Your task to perform on an android device: Go to network settings Image 0: 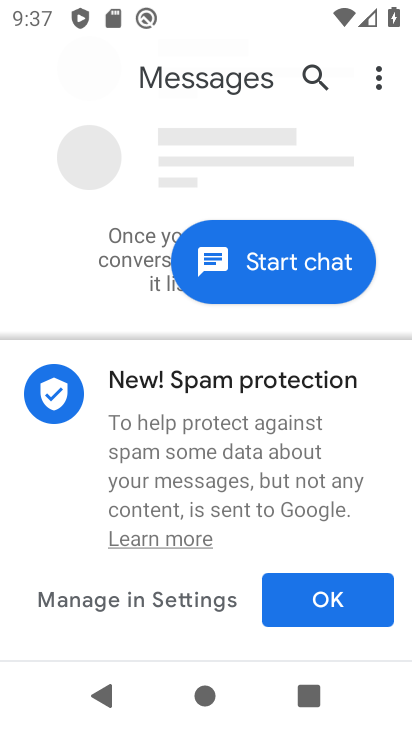
Step 0: press home button
Your task to perform on an android device: Go to network settings Image 1: 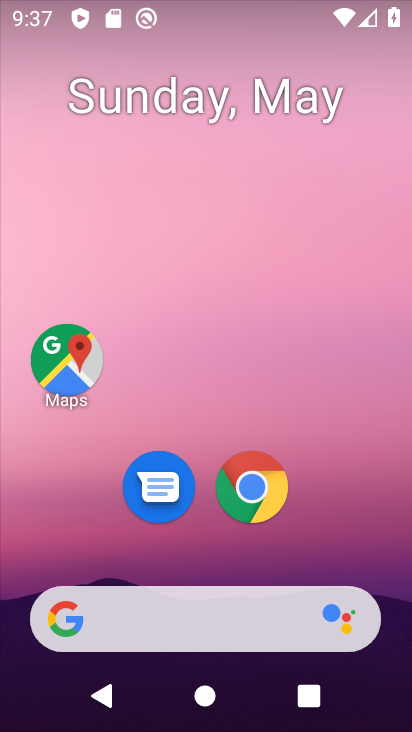
Step 1: drag from (377, 539) to (359, 119)
Your task to perform on an android device: Go to network settings Image 2: 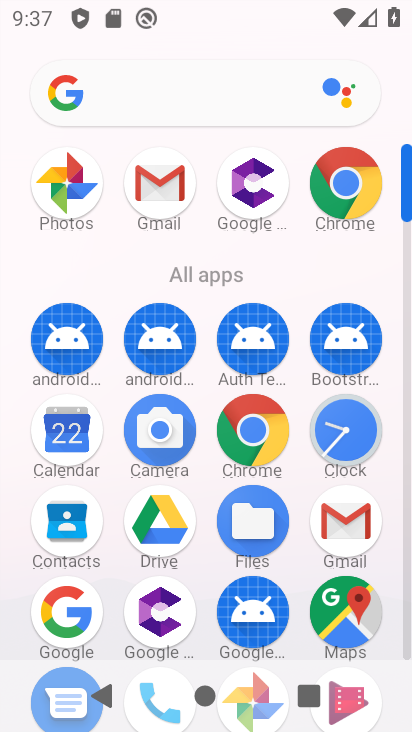
Step 2: drag from (293, 470) to (294, 282)
Your task to perform on an android device: Go to network settings Image 3: 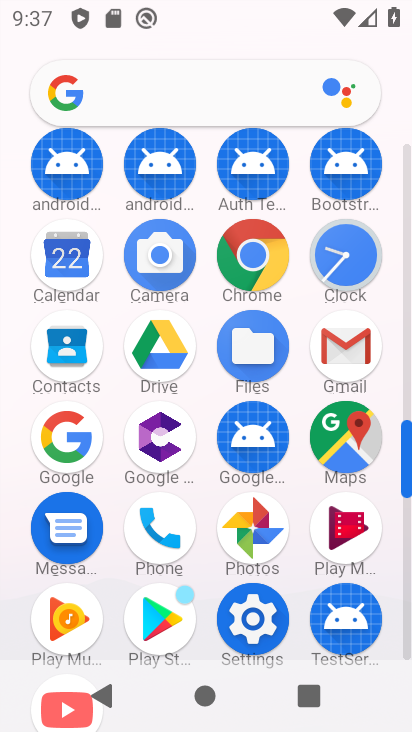
Step 3: click (263, 615)
Your task to perform on an android device: Go to network settings Image 4: 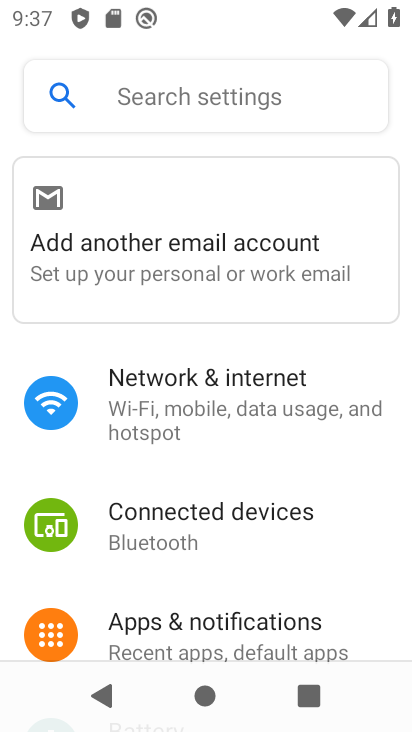
Step 4: drag from (362, 615) to (381, 459)
Your task to perform on an android device: Go to network settings Image 5: 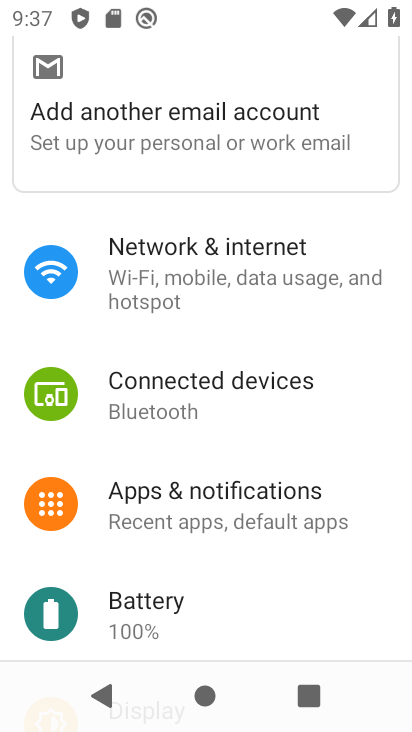
Step 5: drag from (364, 586) to (364, 483)
Your task to perform on an android device: Go to network settings Image 6: 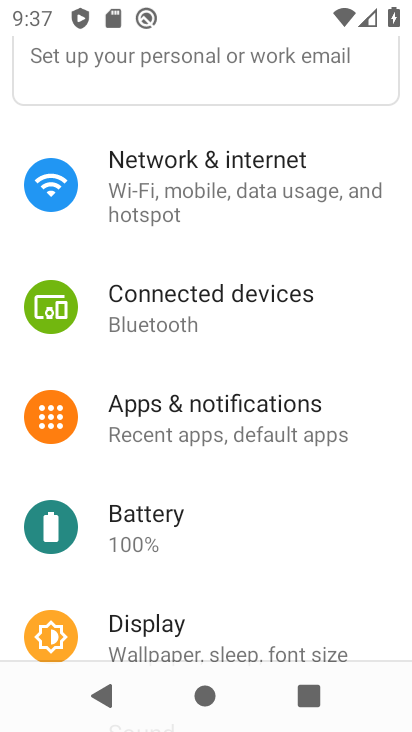
Step 6: drag from (353, 572) to (359, 449)
Your task to perform on an android device: Go to network settings Image 7: 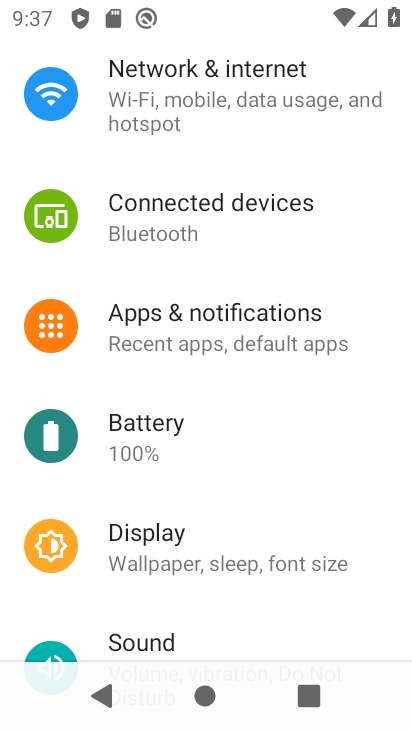
Step 7: drag from (368, 612) to (365, 467)
Your task to perform on an android device: Go to network settings Image 8: 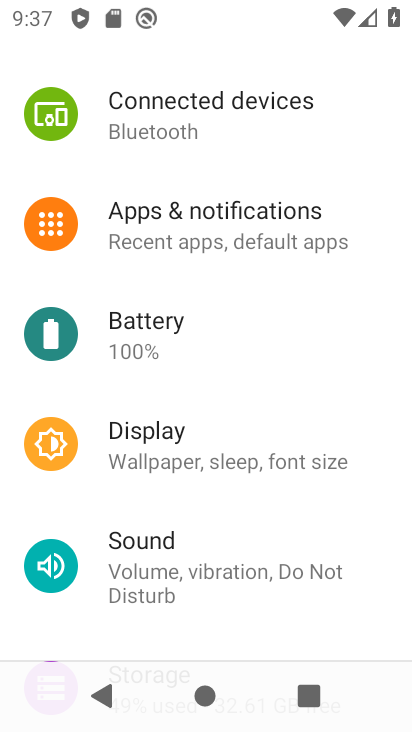
Step 8: drag from (348, 630) to (346, 490)
Your task to perform on an android device: Go to network settings Image 9: 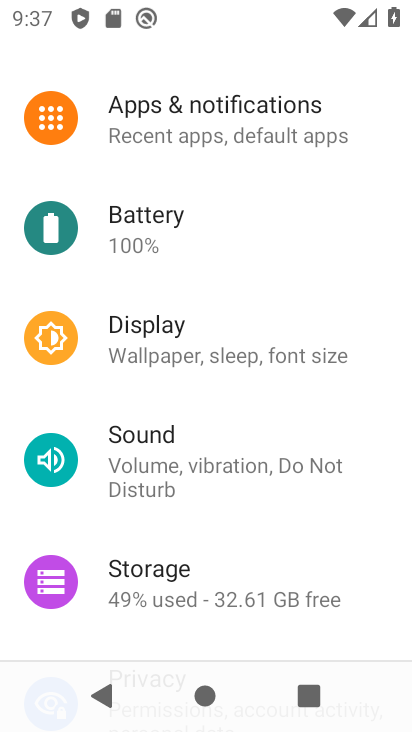
Step 9: drag from (353, 615) to (355, 465)
Your task to perform on an android device: Go to network settings Image 10: 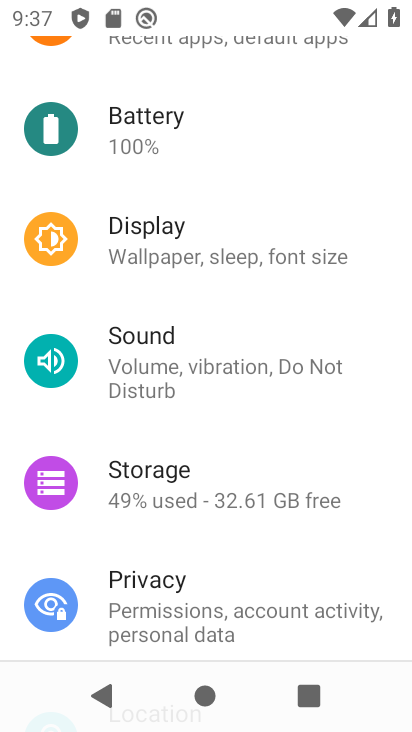
Step 10: drag from (372, 629) to (372, 474)
Your task to perform on an android device: Go to network settings Image 11: 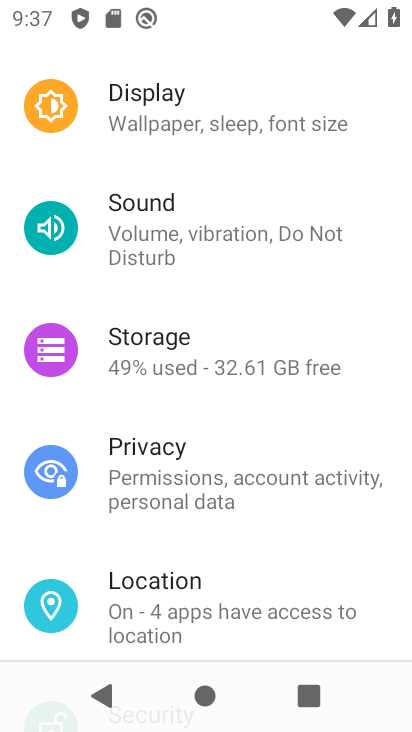
Step 11: drag from (380, 569) to (384, 353)
Your task to perform on an android device: Go to network settings Image 12: 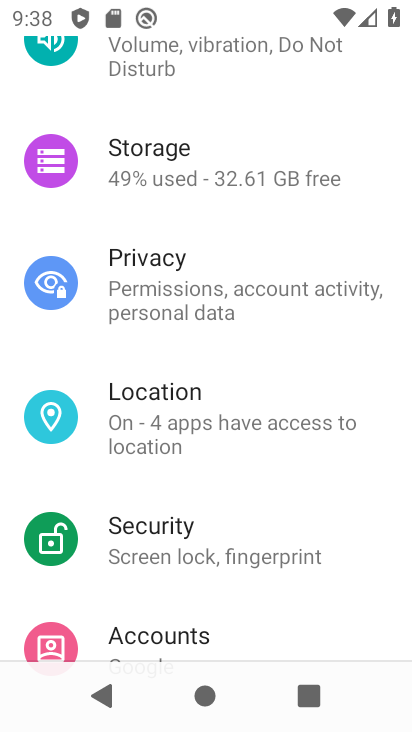
Step 12: drag from (383, 239) to (379, 367)
Your task to perform on an android device: Go to network settings Image 13: 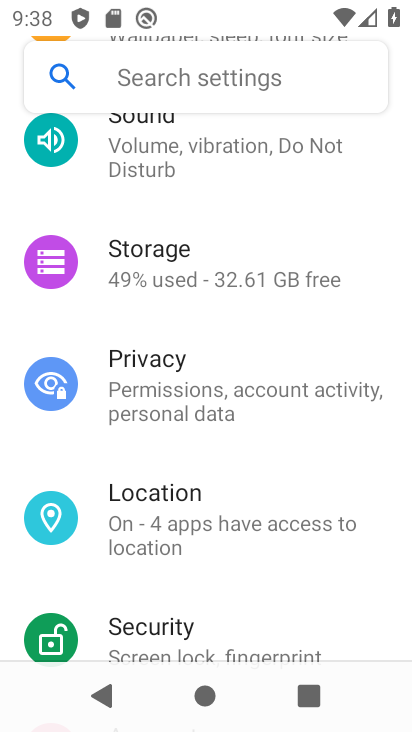
Step 13: drag from (379, 248) to (375, 370)
Your task to perform on an android device: Go to network settings Image 14: 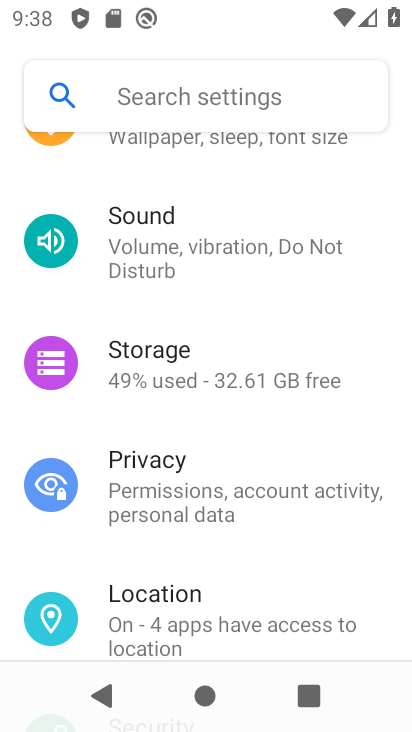
Step 14: drag from (373, 250) to (366, 384)
Your task to perform on an android device: Go to network settings Image 15: 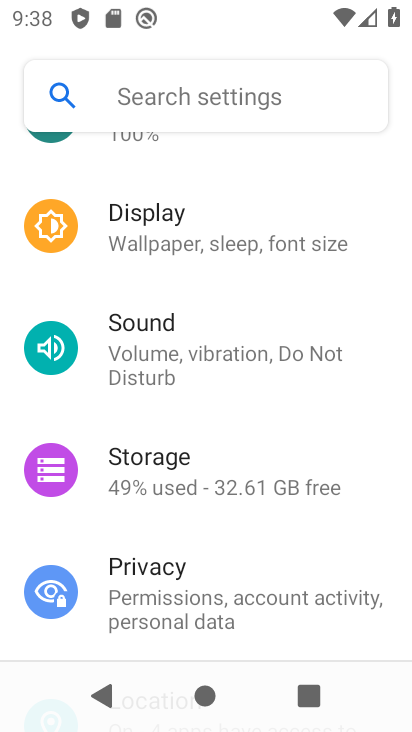
Step 15: drag from (343, 261) to (345, 385)
Your task to perform on an android device: Go to network settings Image 16: 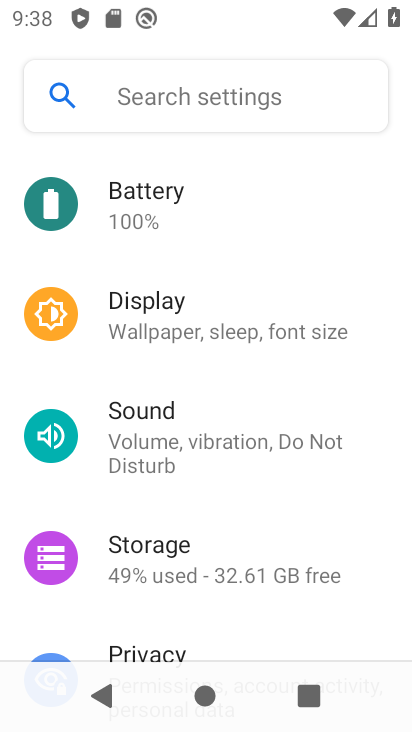
Step 16: drag from (349, 239) to (359, 369)
Your task to perform on an android device: Go to network settings Image 17: 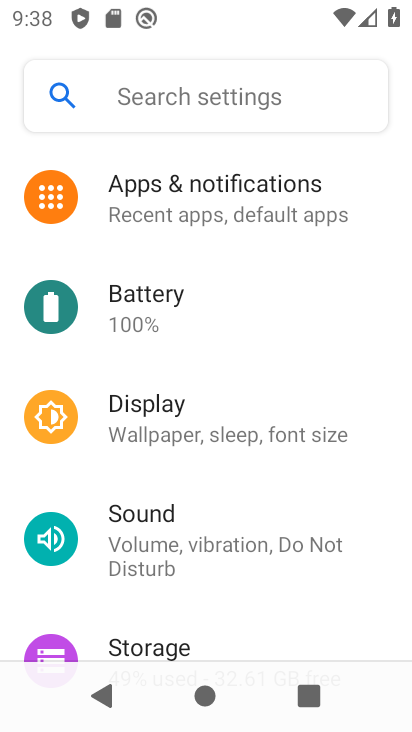
Step 17: click (361, 347)
Your task to perform on an android device: Go to network settings Image 18: 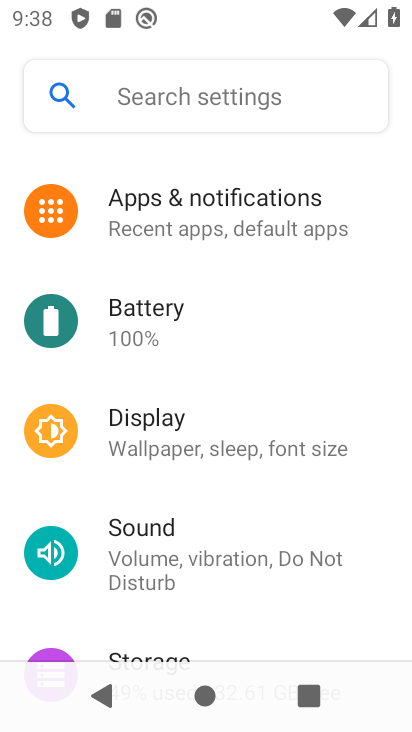
Step 18: drag from (354, 223) to (361, 405)
Your task to perform on an android device: Go to network settings Image 19: 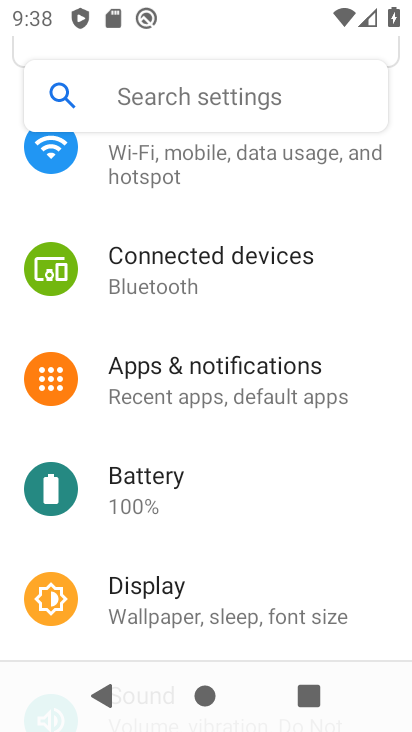
Step 19: drag from (364, 220) to (361, 376)
Your task to perform on an android device: Go to network settings Image 20: 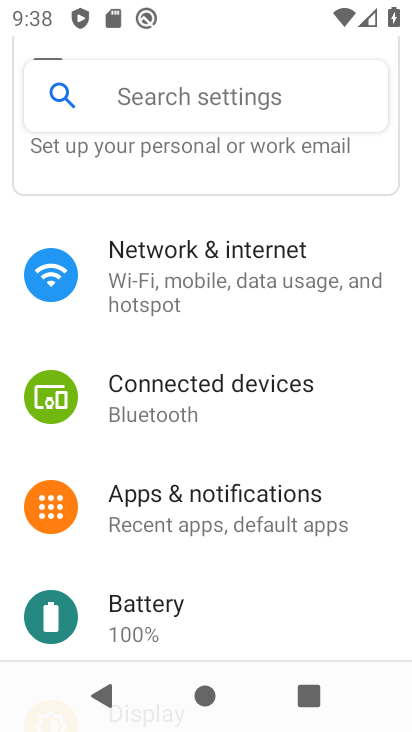
Step 20: click (276, 281)
Your task to perform on an android device: Go to network settings Image 21: 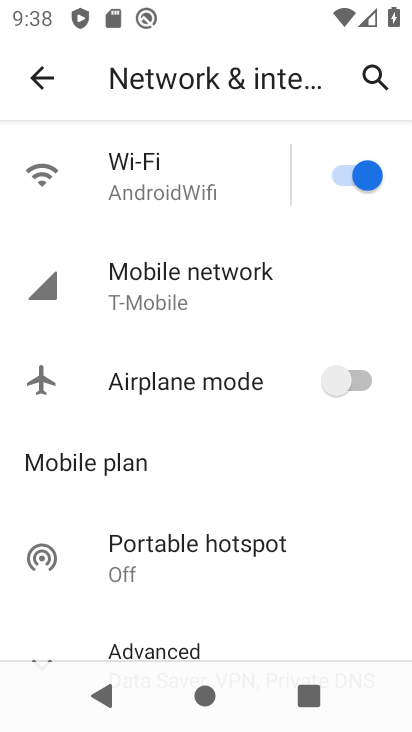
Step 21: task complete